Your task to perform on an android device: install app "Firefox Browser" Image 0: 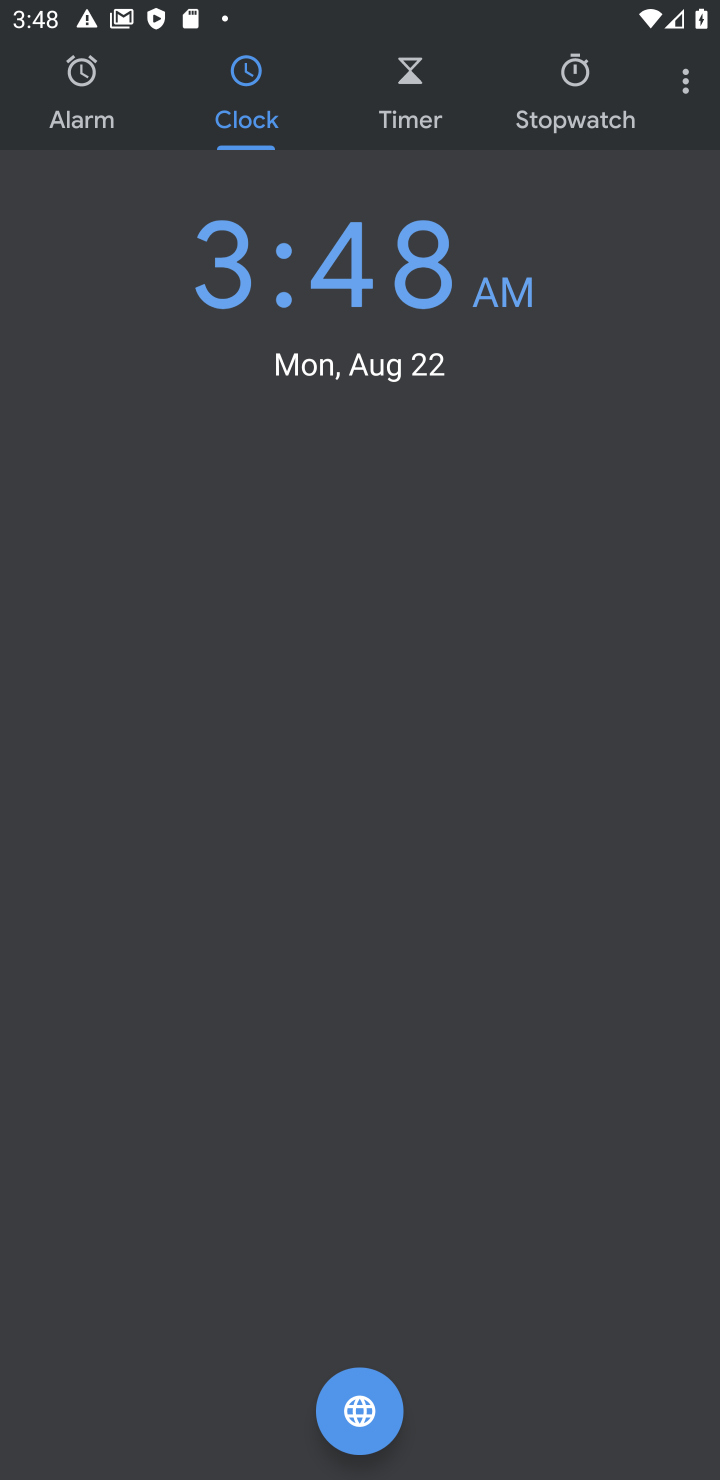
Step 0: press home button
Your task to perform on an android device: install app "Firefox Browser" Image 1: 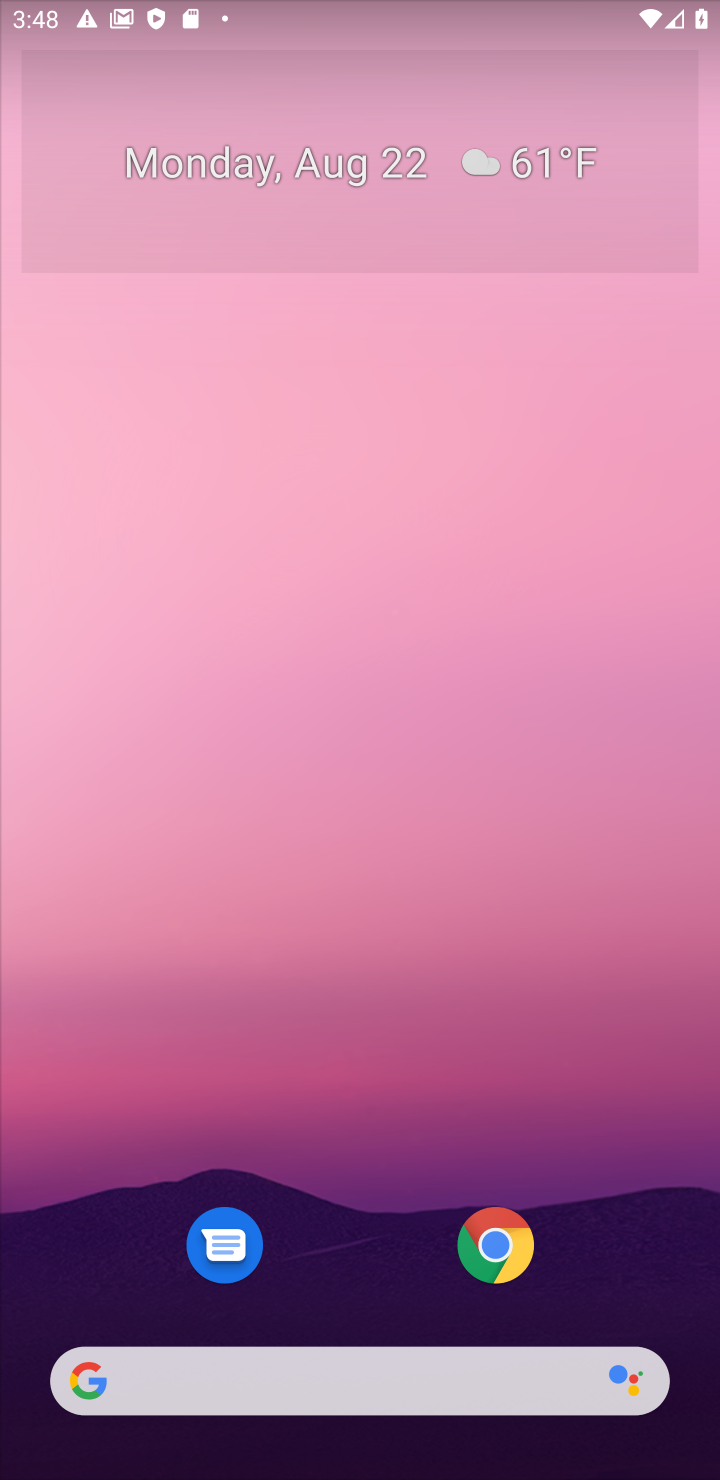
Step 1: drag from (634, 1203) to (644, 177)
Your task to perform on an android device: install app "Firefox Browser" Image 2: 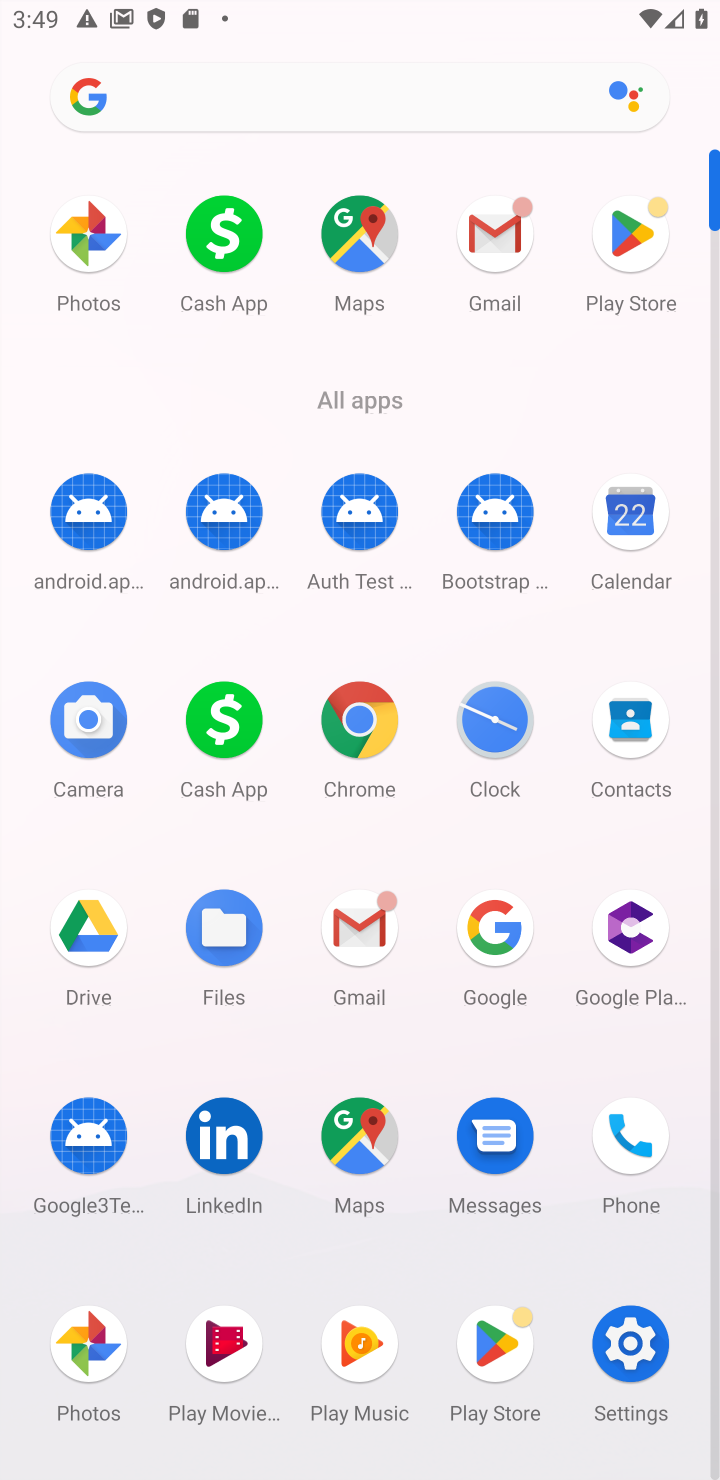
Step 2: click (635, 240)
Your task to perform on an android device: install app "Firefox Browser" Image 3: 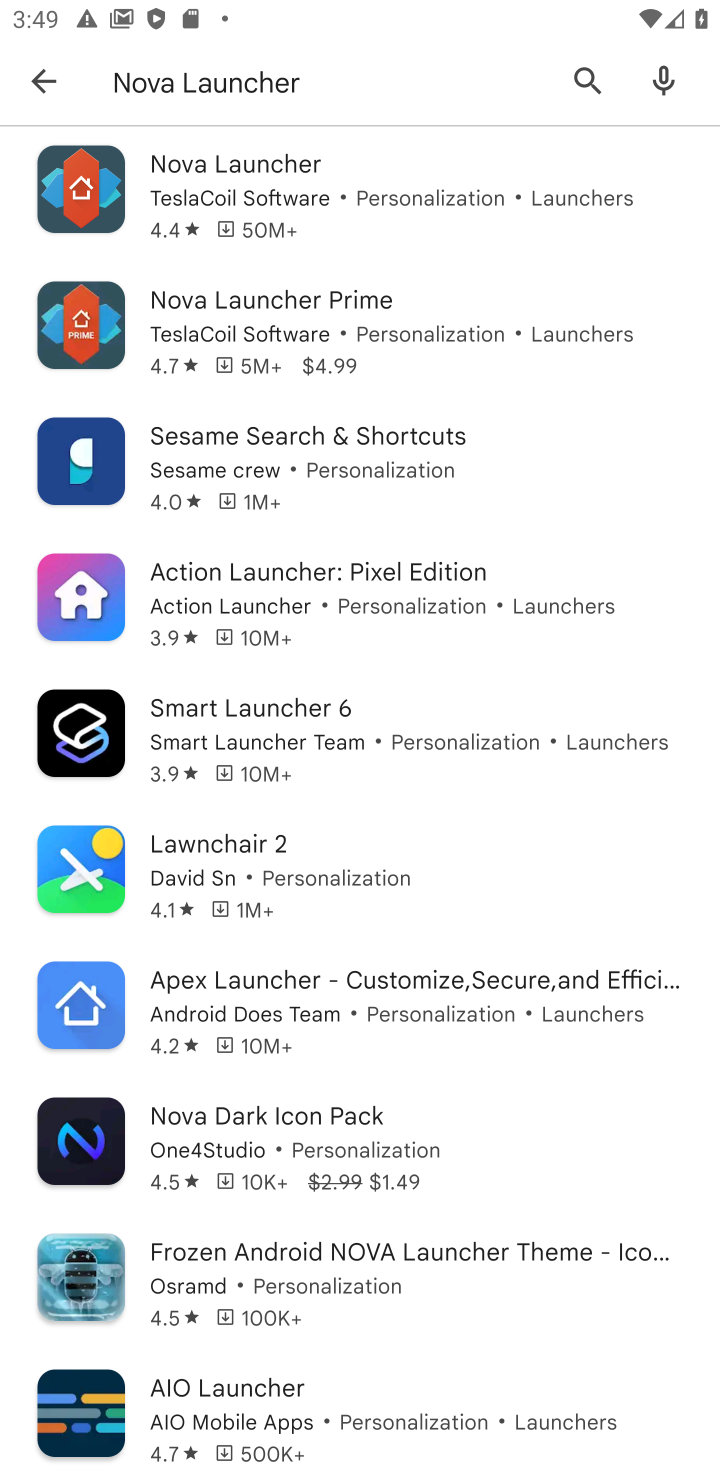
Step 3: press back button
Your task to perform on an android device: install app "Firefox Browser" Image 4: 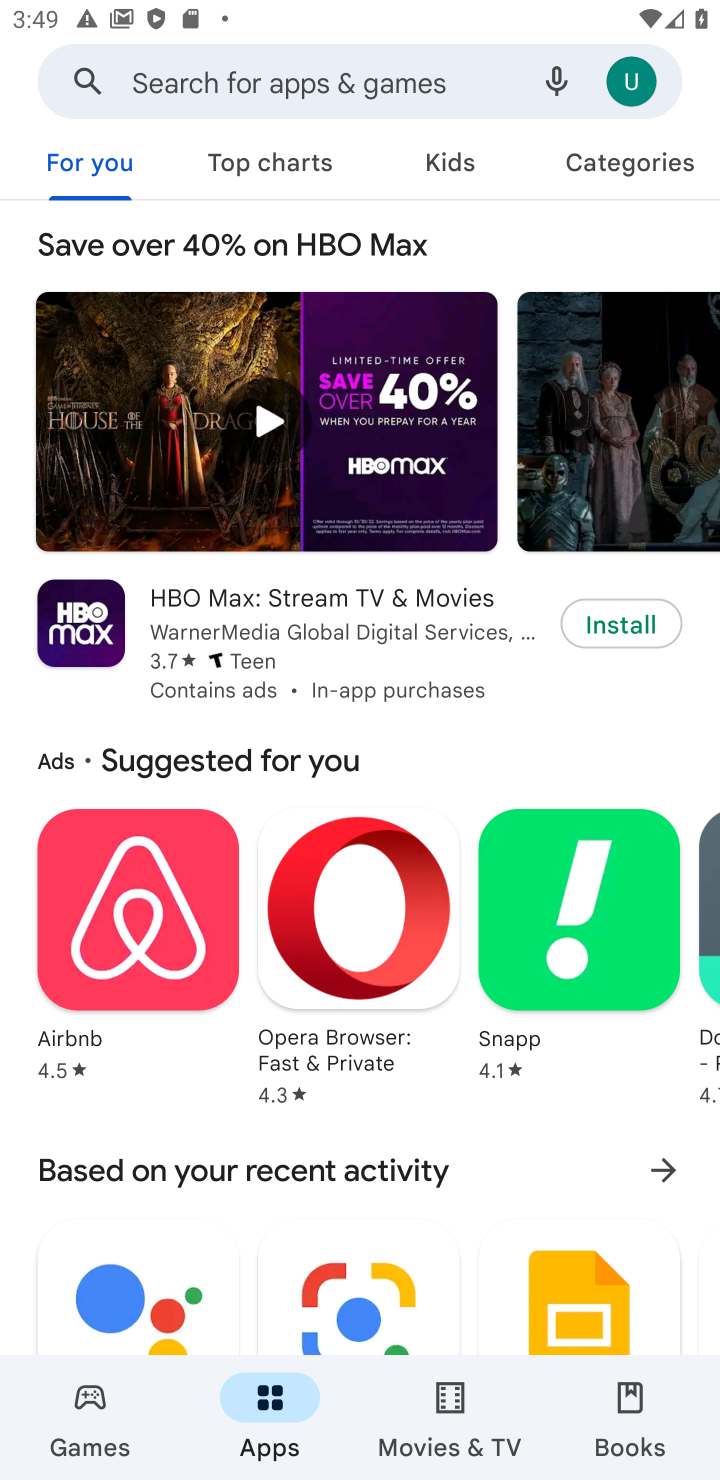
Step 4: click (383, 83)
Your task to perform on an android device: install app "Firefox Browser" Image 5: 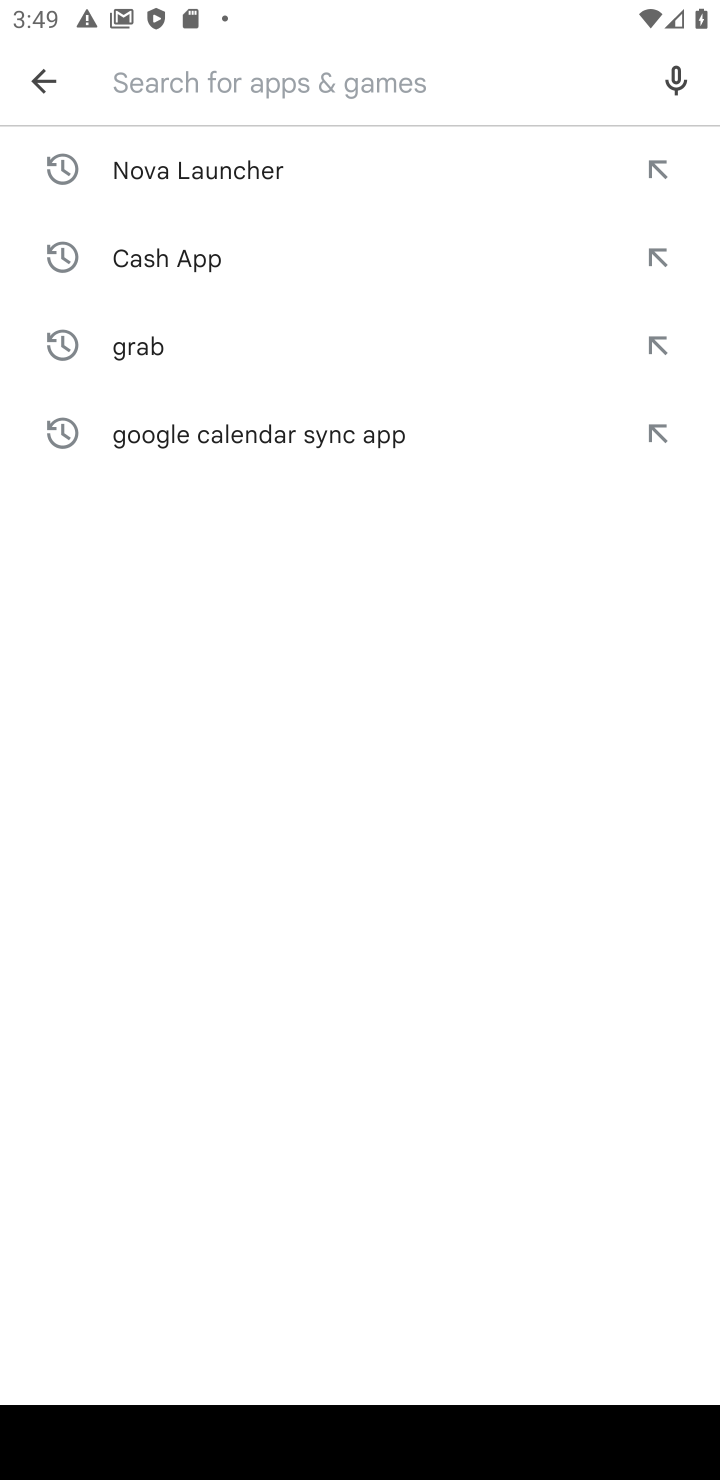
Step 5: type "Firefox Browser"
Your task to perform on an android device: install app "Firefox Browser" Image 6: 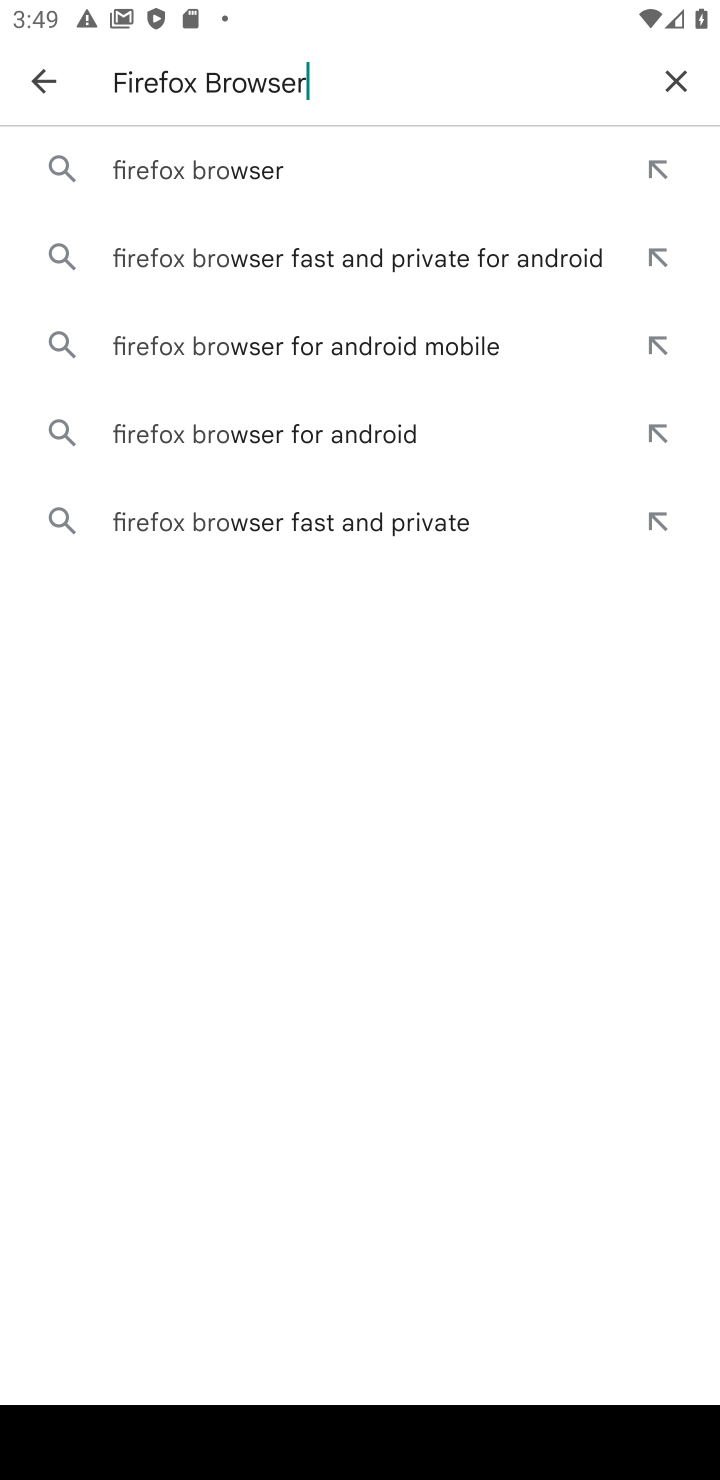
Step 6: press enter
Your task to perform on an android device: install app "Firefox Browser" Image 7: 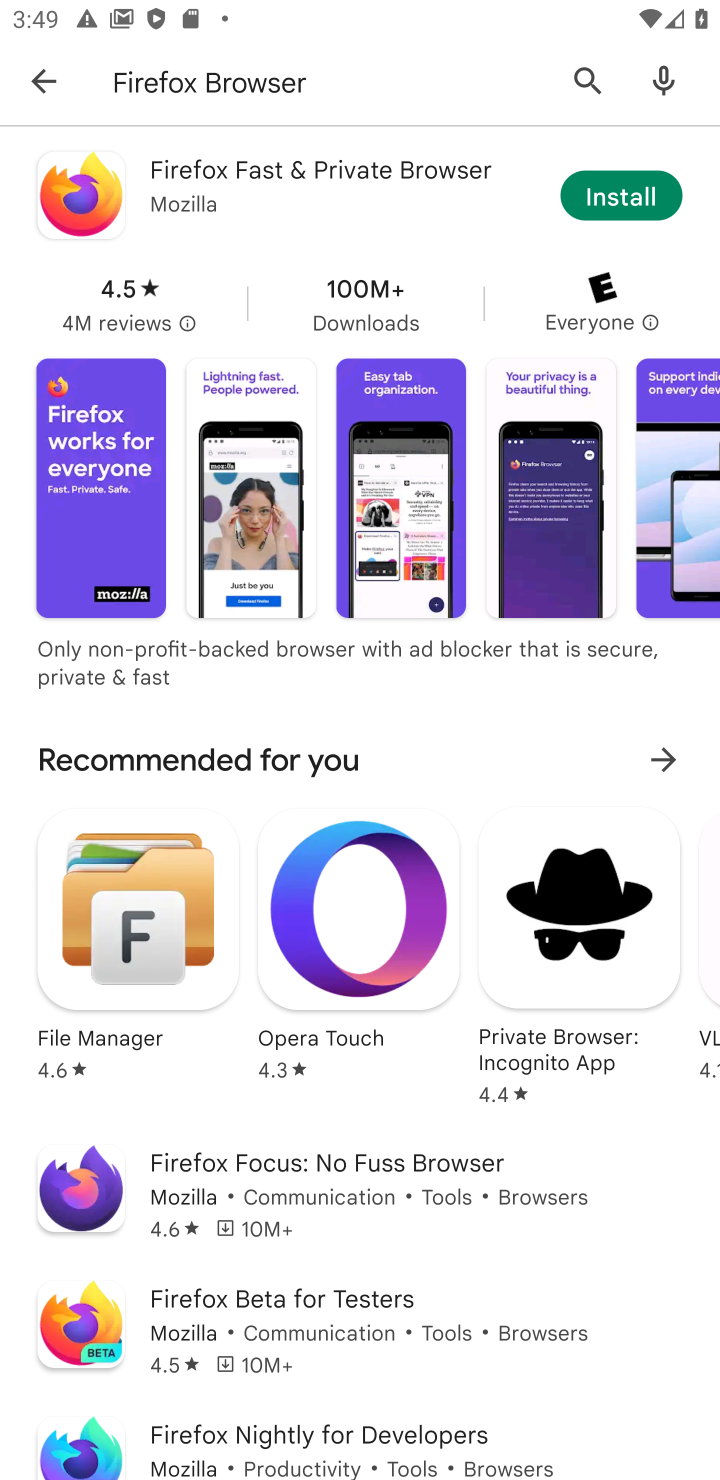
Step 7: click (621, 195)
Your task to perform on an android device: install app "Firefox Browser" Image 8: 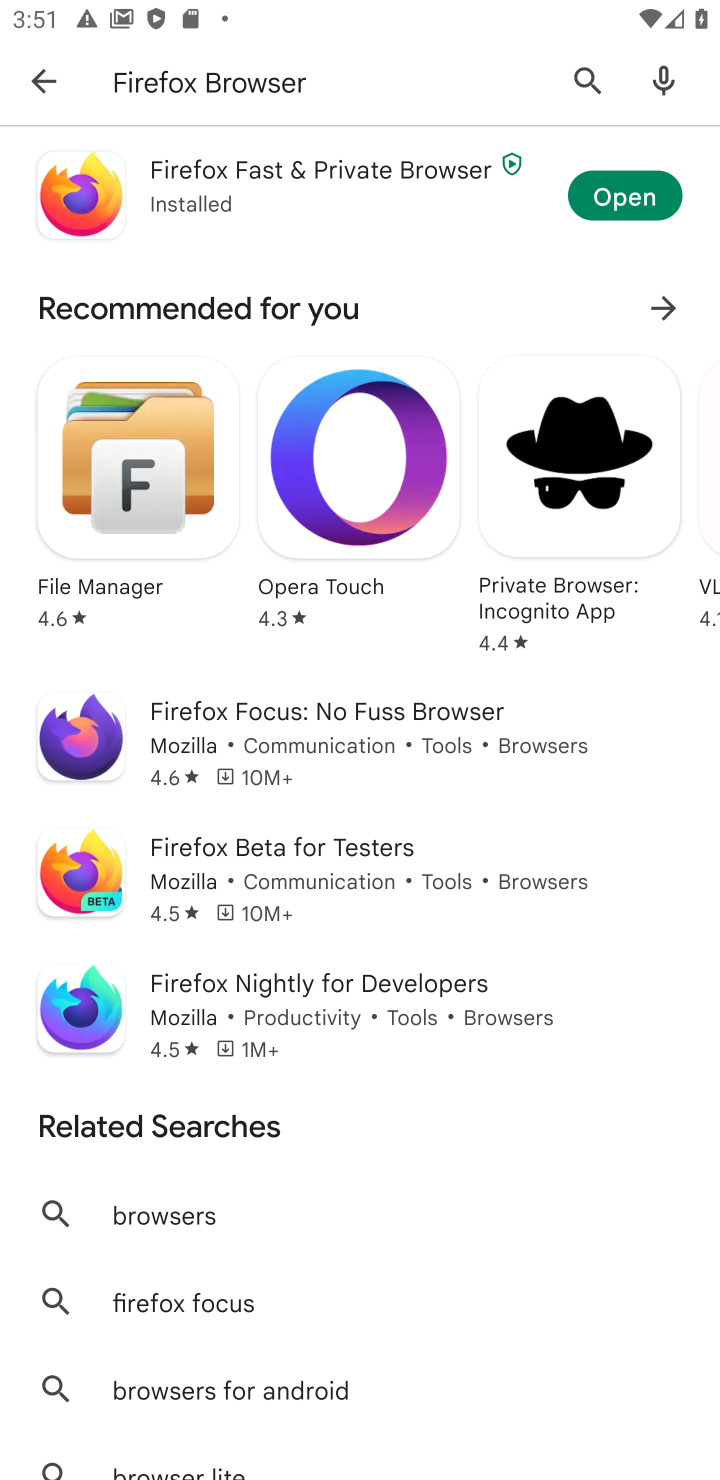
Step 8: task complete